Your task to perform on an android device: Open Yahoo.com Image 0: 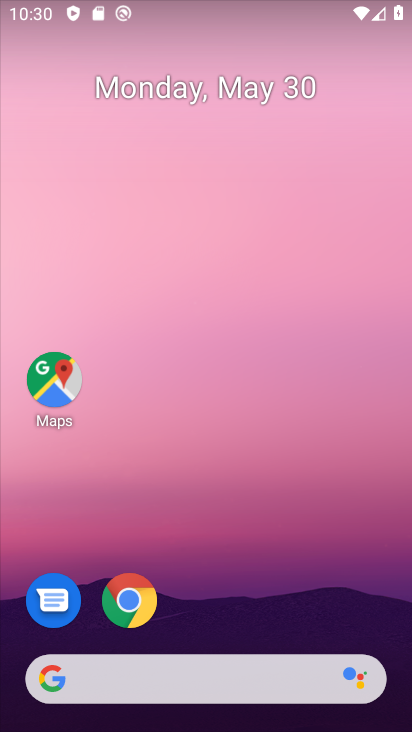
Step 0: click (139, 613)
Your task to perform on an android device: Open Yahoo.com Image 1: 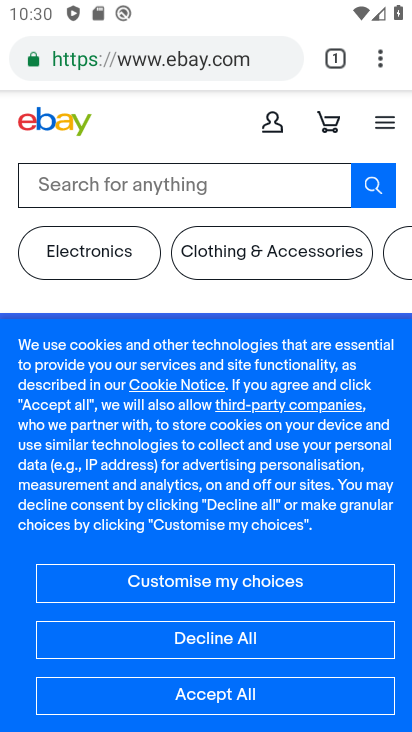
Step 1: click (152, 54)
Your task to perform on an android device: Open Yahoo.com Image 2: 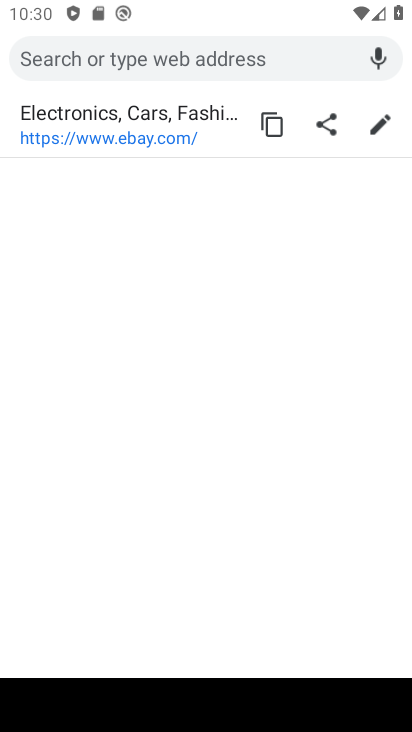
Step 2: type " Yahoo.com"
Your task to perform on an android device: Open Yahoo.com Image 3: 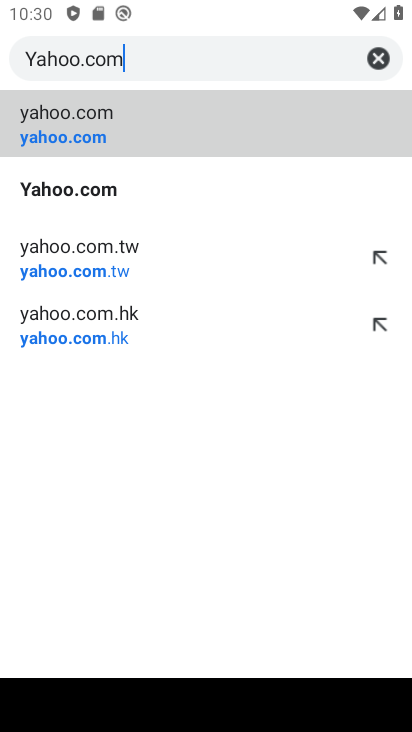
Step 3: click (51, 134)
Your task to perform on an android device: Open Yahoo.com Image 4: 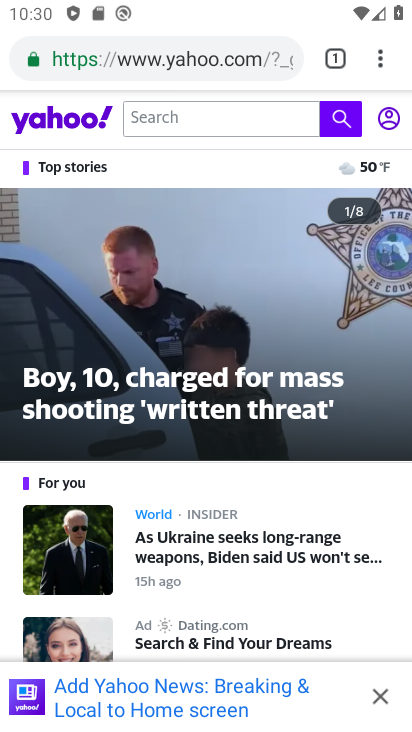
Step 4: task complete